Your task to perform on an android device: install app "Life360: Find Family & Friends" Image 0: 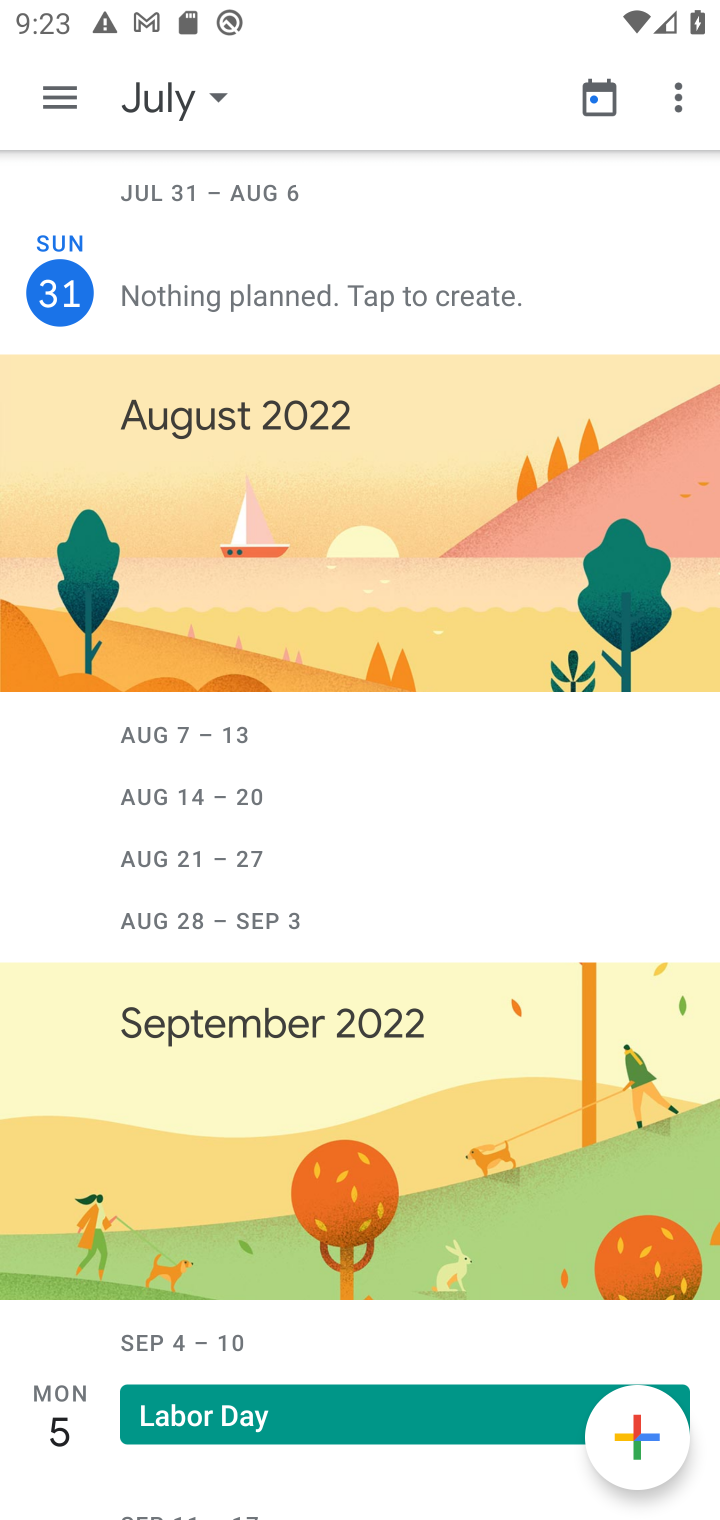
Step 0: press home button
Your task to perform on an android device: install app "Life360: Find Family & Friends" Image 1: 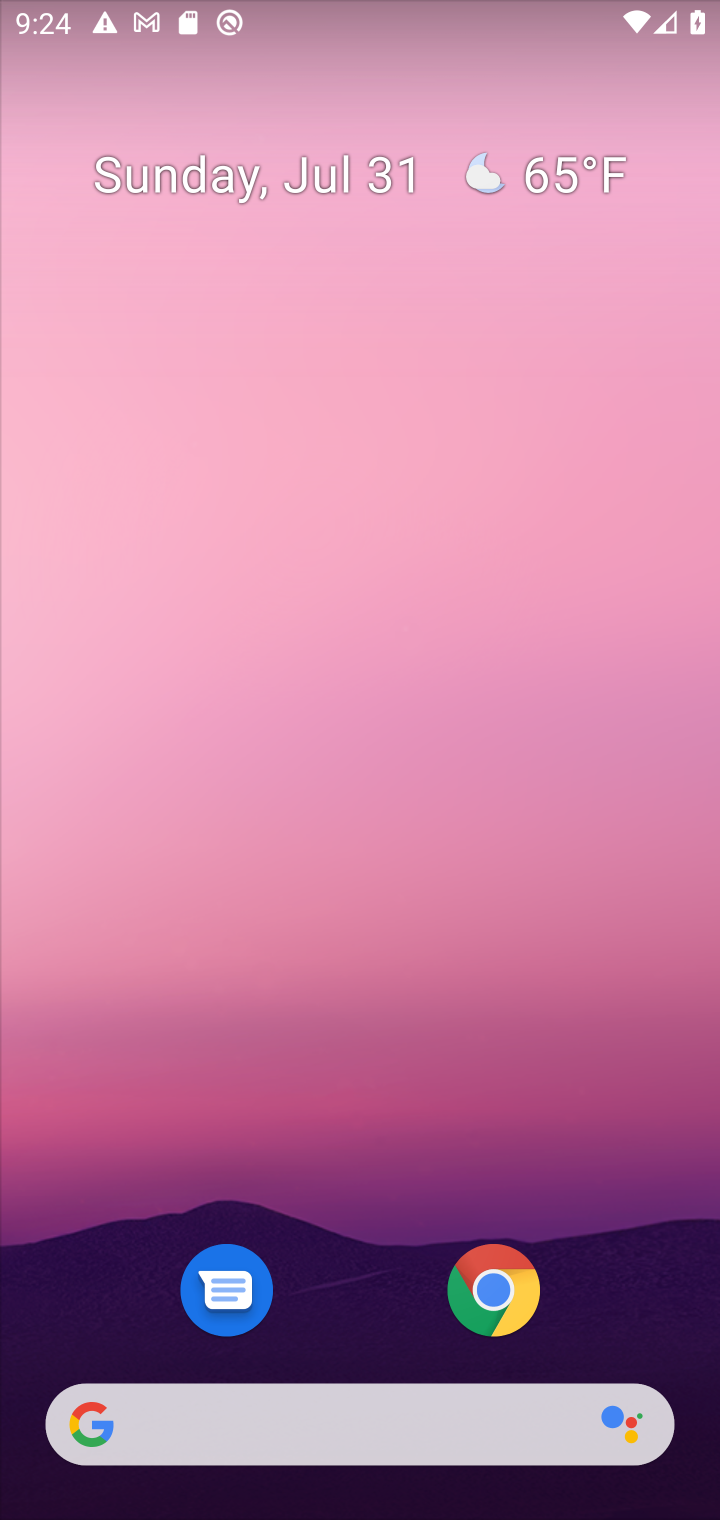
Step 1: drag from (608, 1082) to (549, 74)
Your task to perform on an android device: install app "Life360: Find Family & Friends" Image 2: 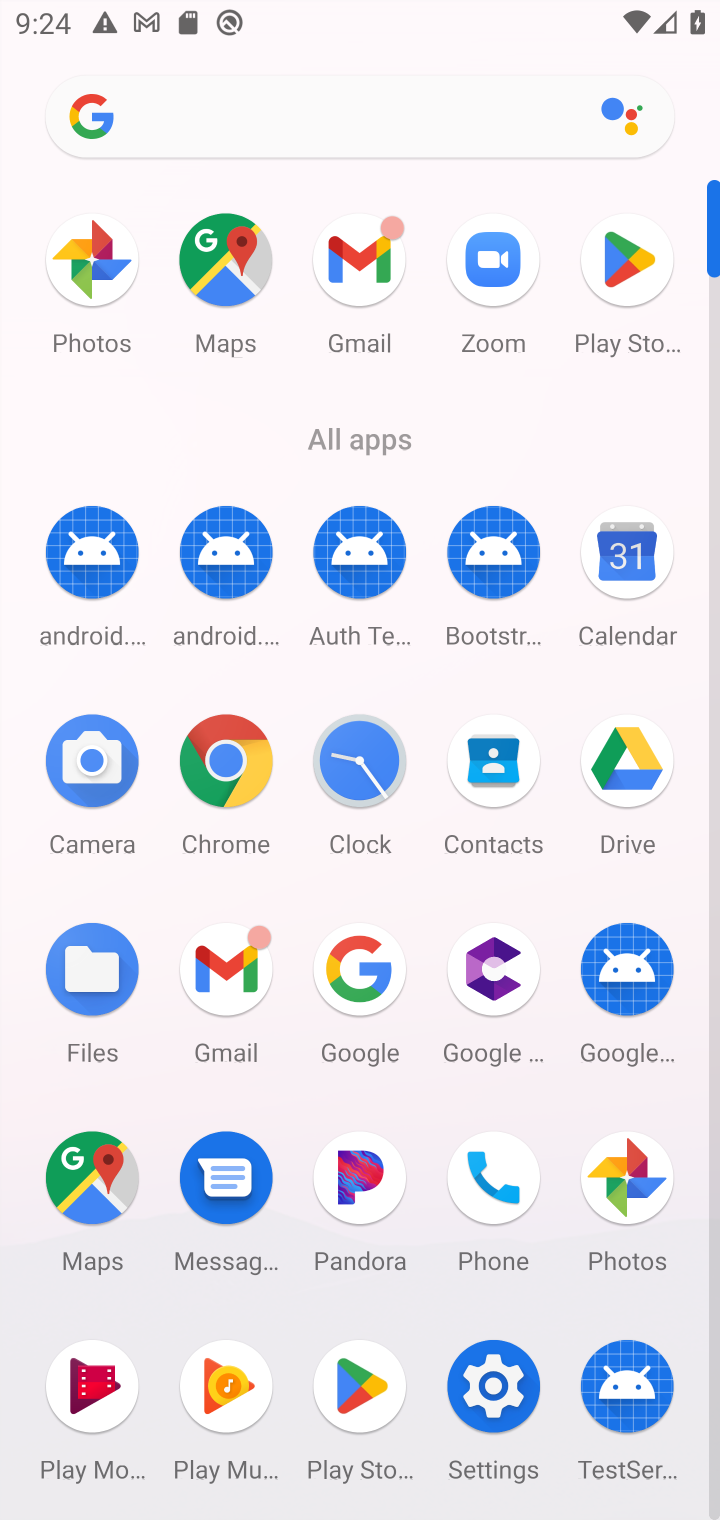
Step 2: click (407, 137)
Your task to perform on an android device: install app "Life360: Find Family & Friends" Image 3: 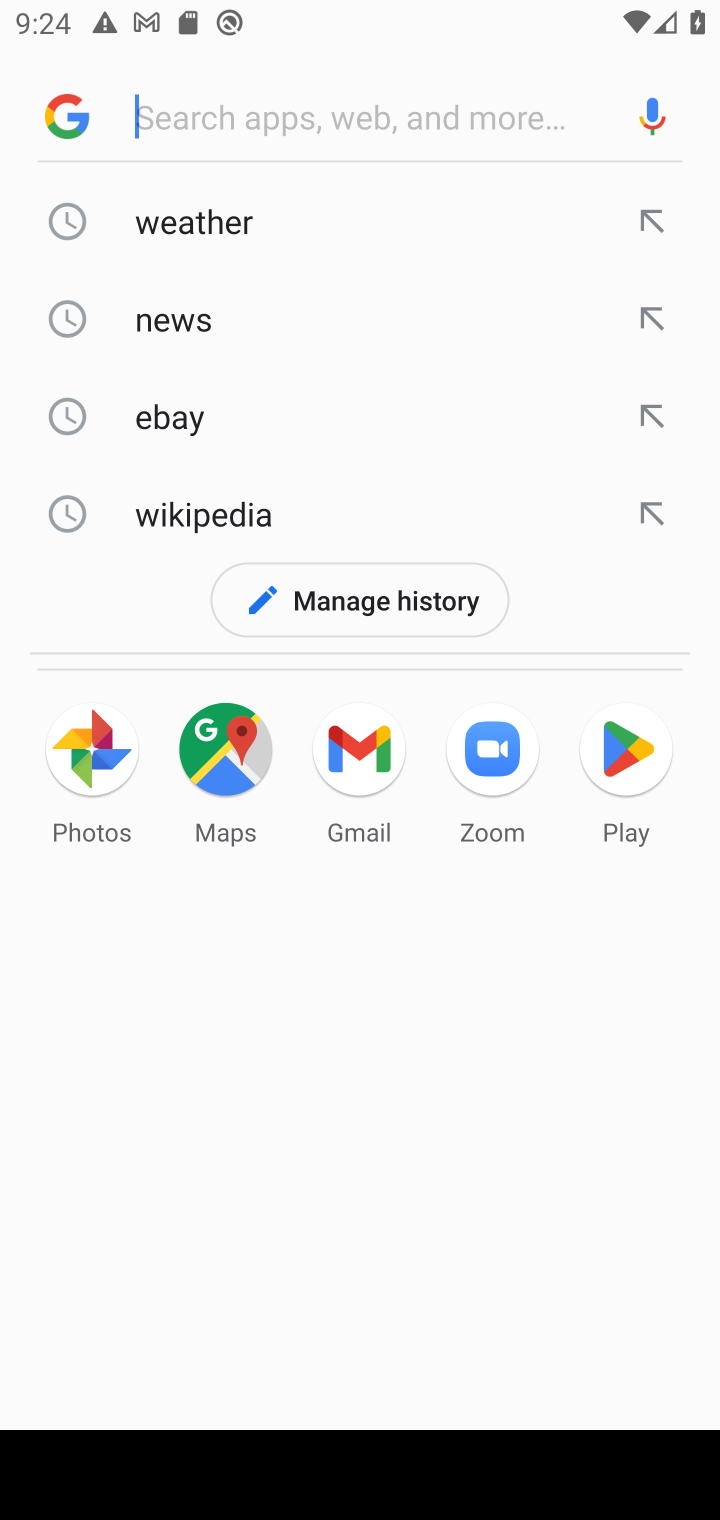
Step 3: type "Life360: Find Family & Friends"
Your task to perform on an android device: install app "Life360: Find Family & Friends" Image 4: 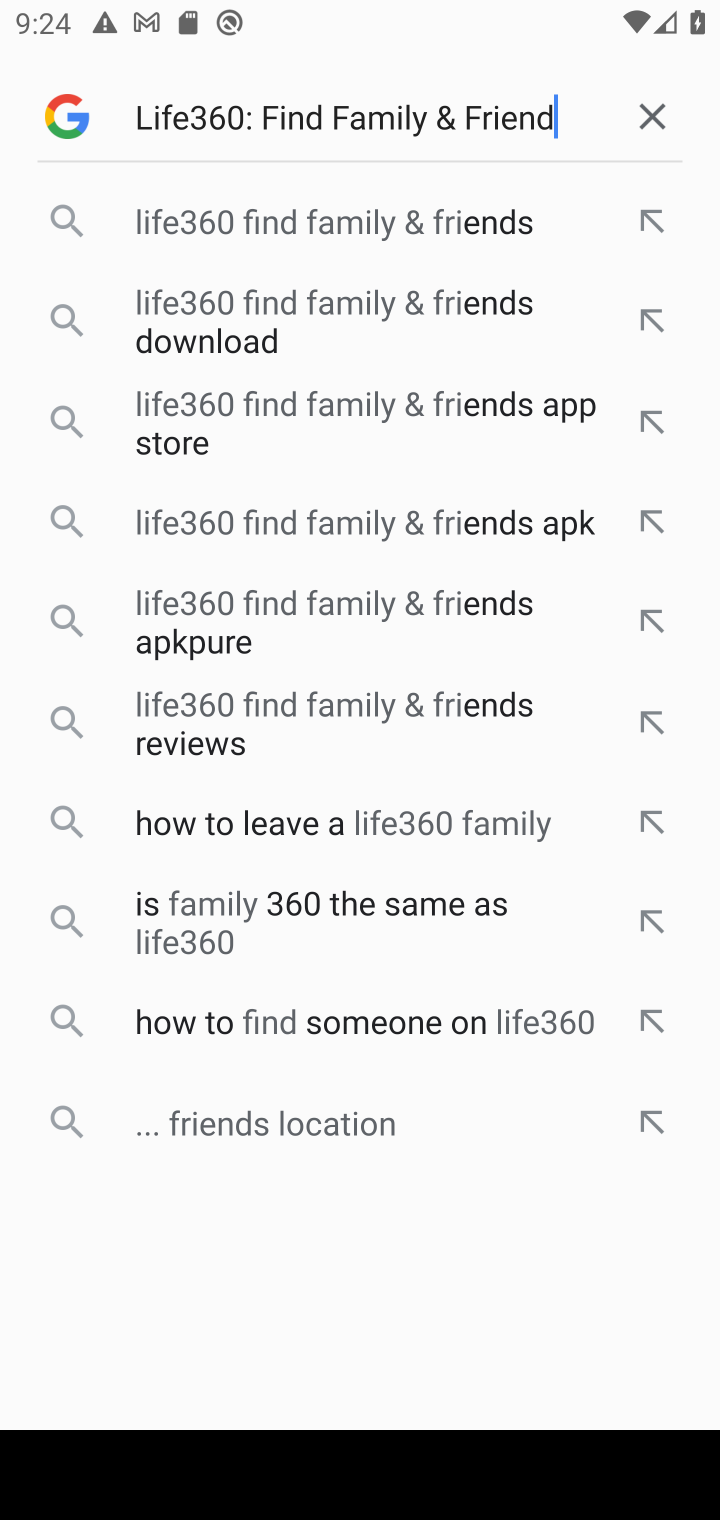
Step 4: press home button
Your task to perform on an android device: install app "Life360: Find Family & Friends" Image 5: 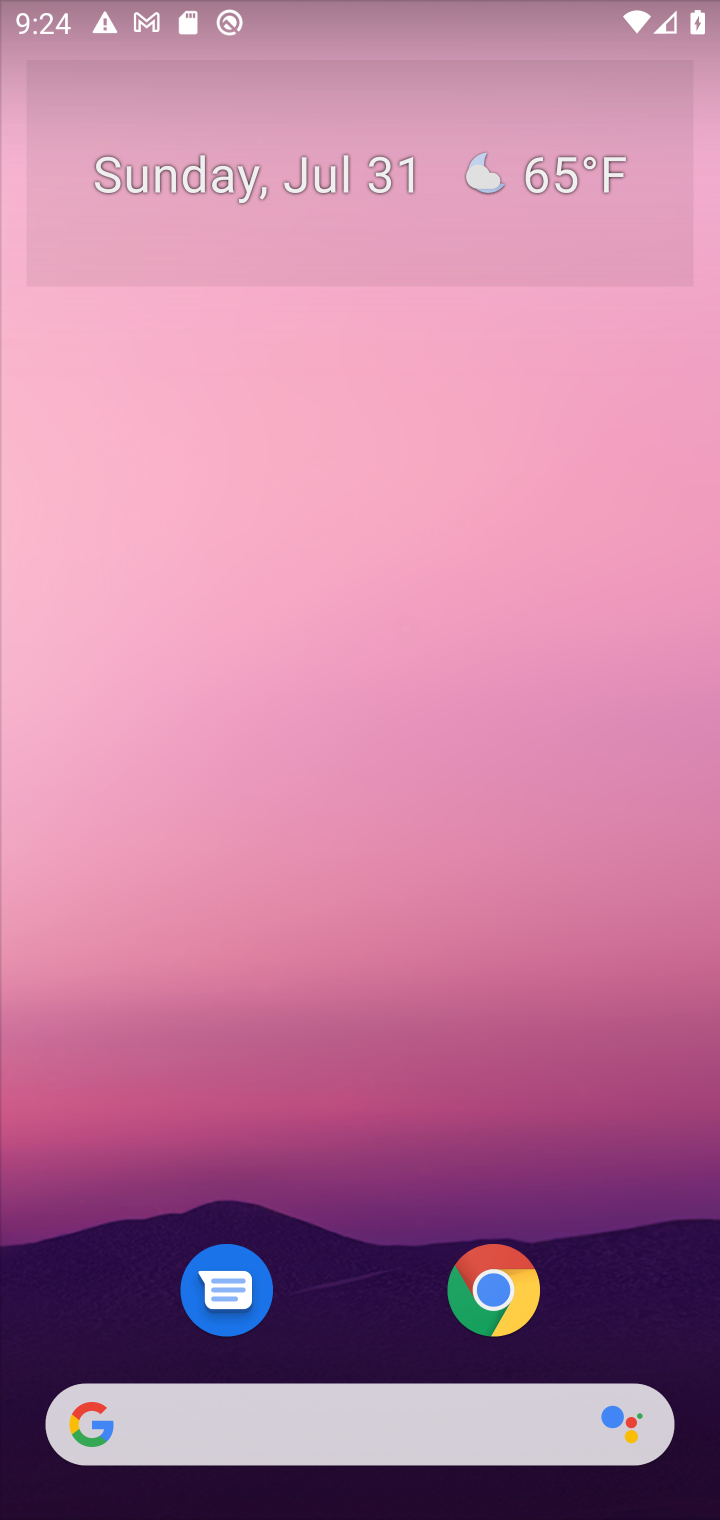
Step 5: drag from (610, 1227) to (621, 116)
Your task to perform on an android device: install app "Life360: Find Family & Friends" Image 6: 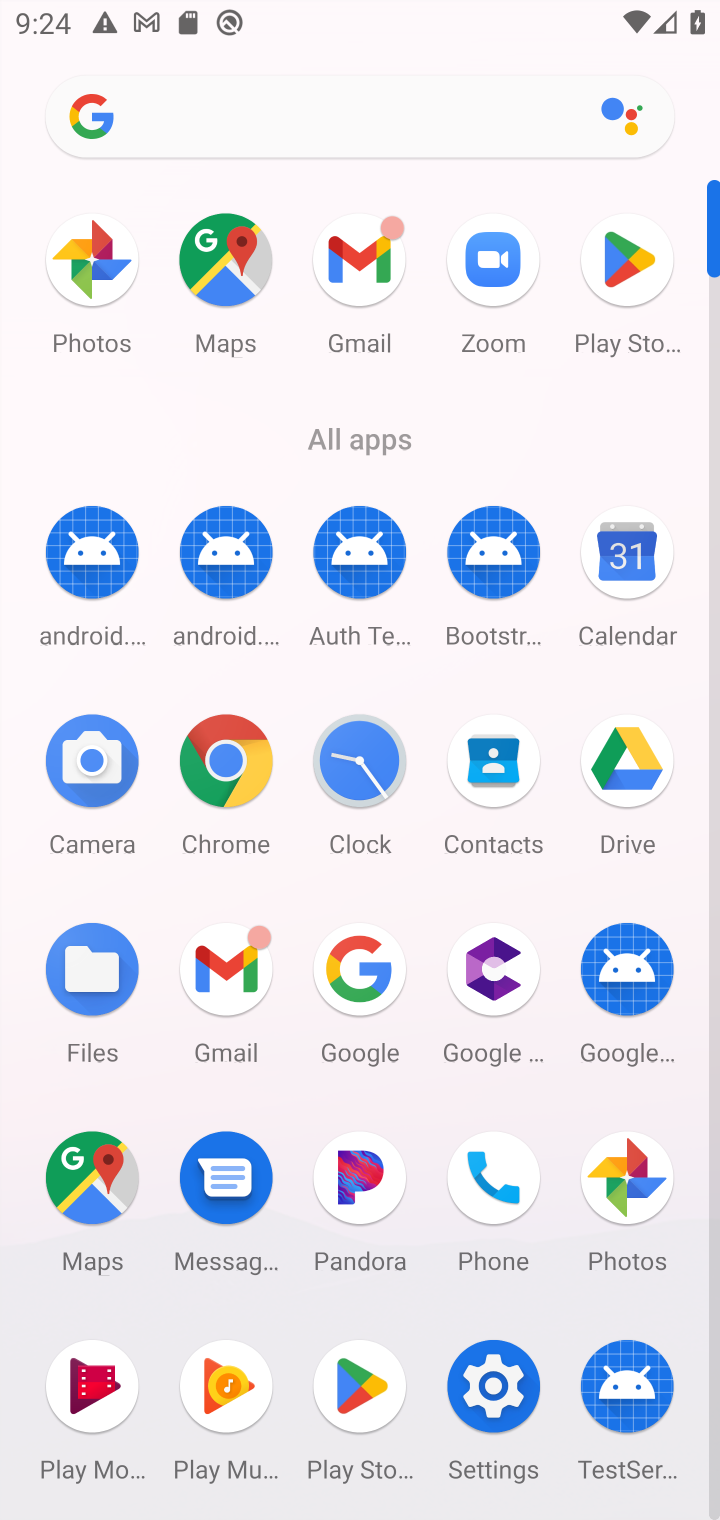
Step 6: click (626, 263)
Your task to perform on an android device: install app "Life360: Find Family & Friends" Image 7: 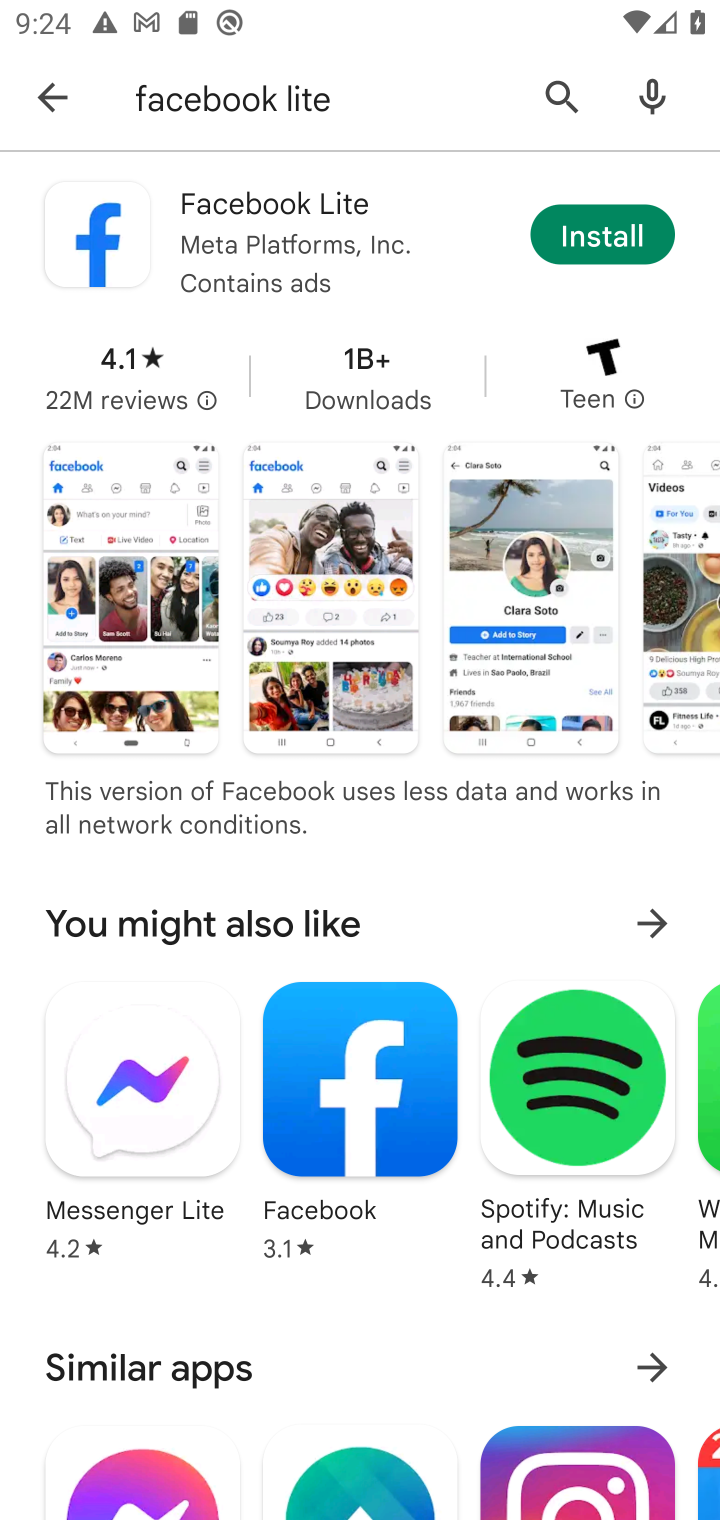
Step 7: click (555, 98)
Your task to perform on an android device: install app "Life360: Find Family & Friends" Image 8: 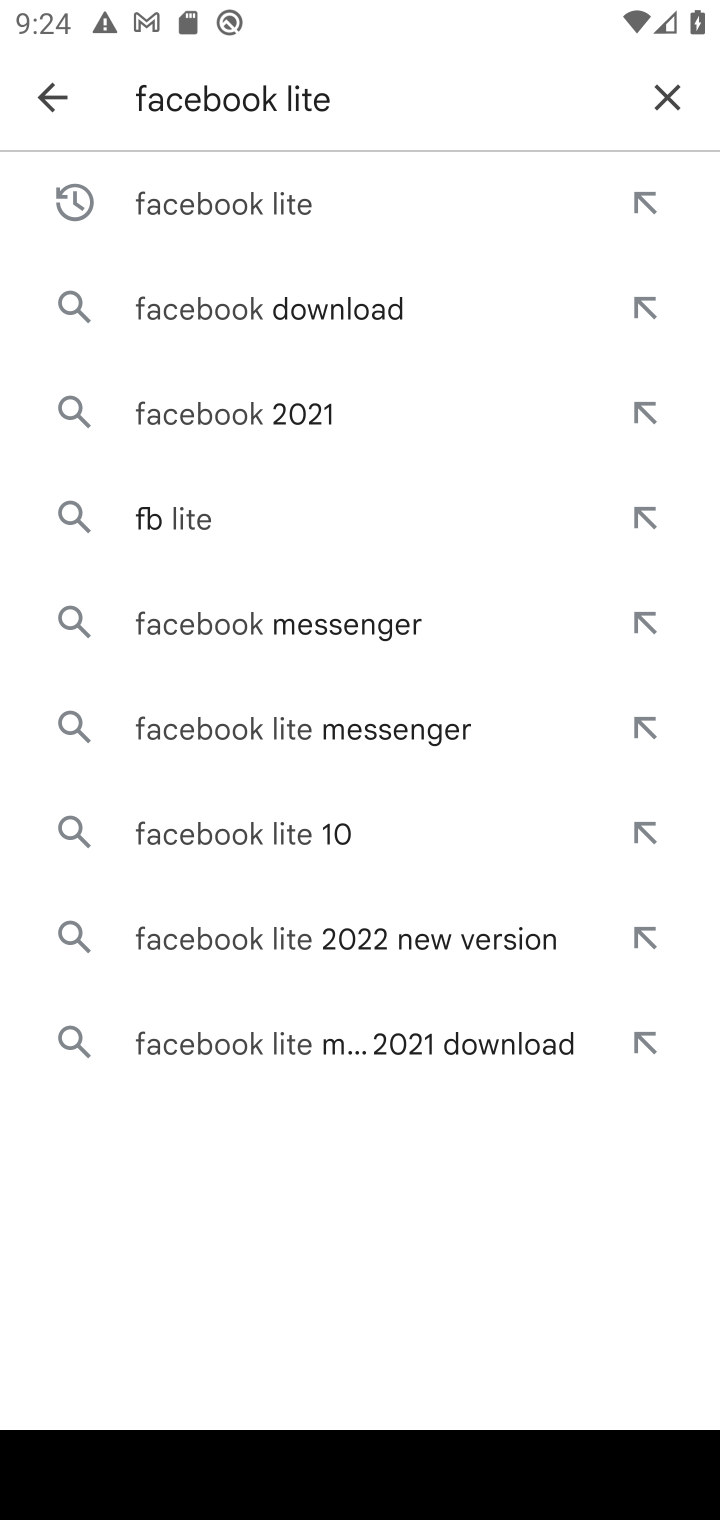
Step 8: click (673, 94)
Your task to perform on an android device: install app "Life360: Find Family & Friends" Image 9: 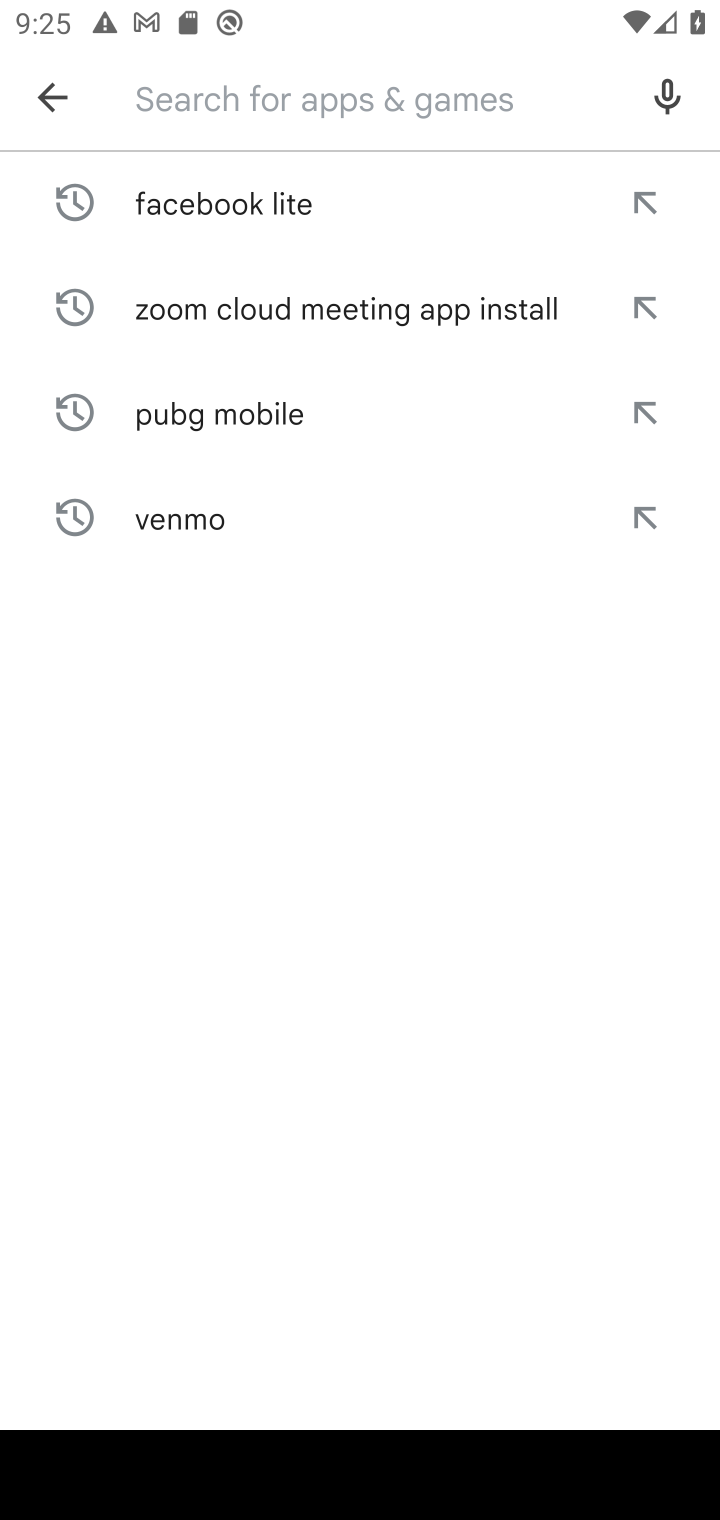
Step 9: type "Life360: Find Family & Friends"
Your task to perform on an android device: install app "Life360: Find Family & Friends" Image 10: 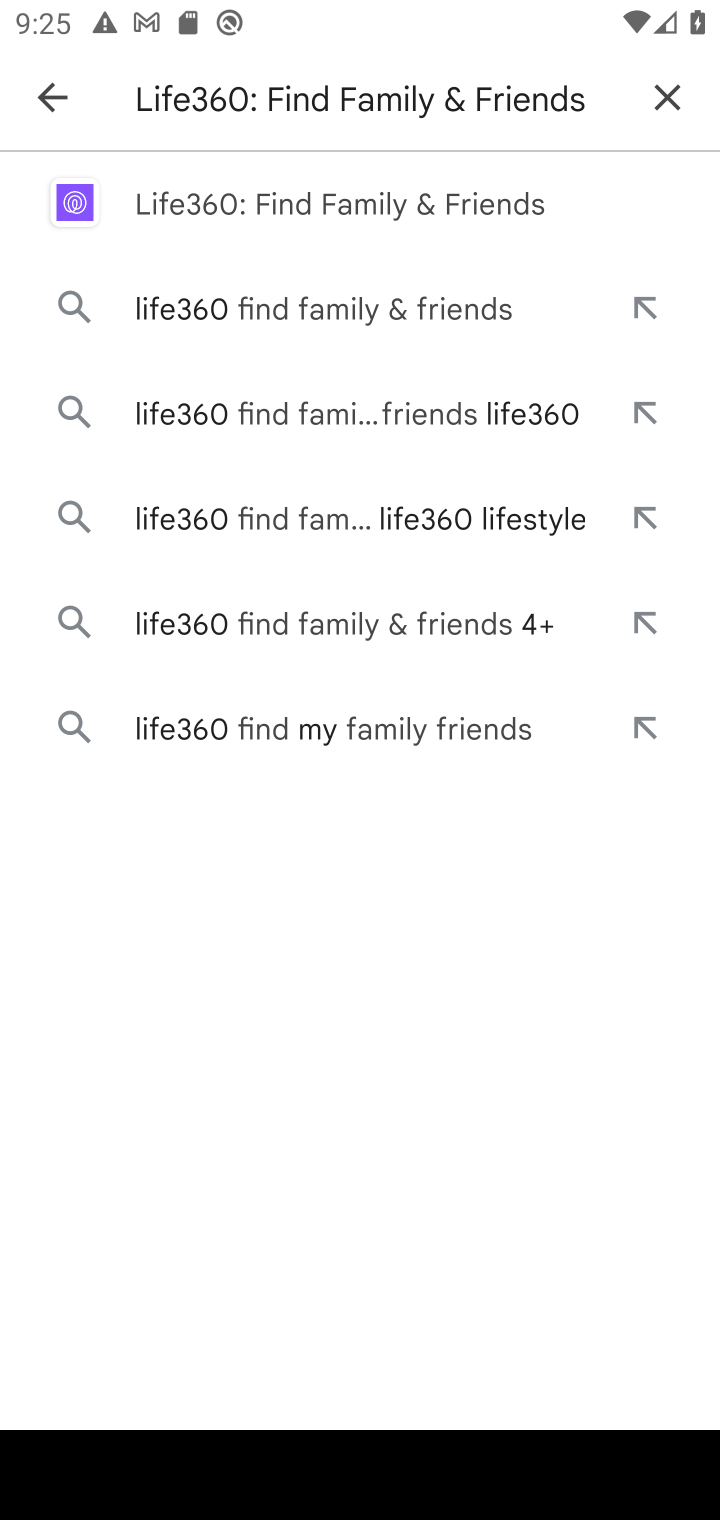
Step 10: click (374, 213)
Your task to perform on an android device: install app "Life360: Find Family & Friends" Image 11: 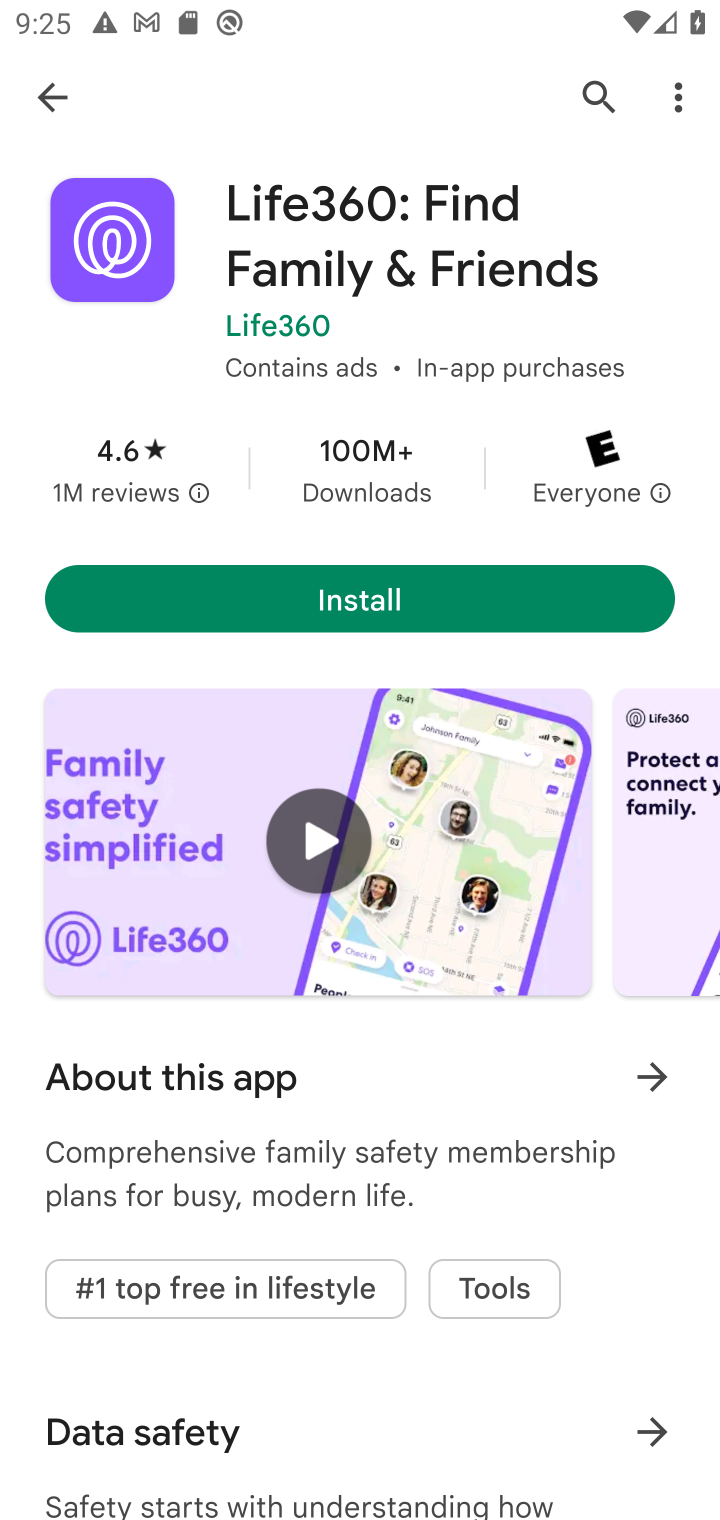
Step 11: click (407, 595)
Your task to perform on an android device: install app "Life360: Find Family & Friends" Image 12: 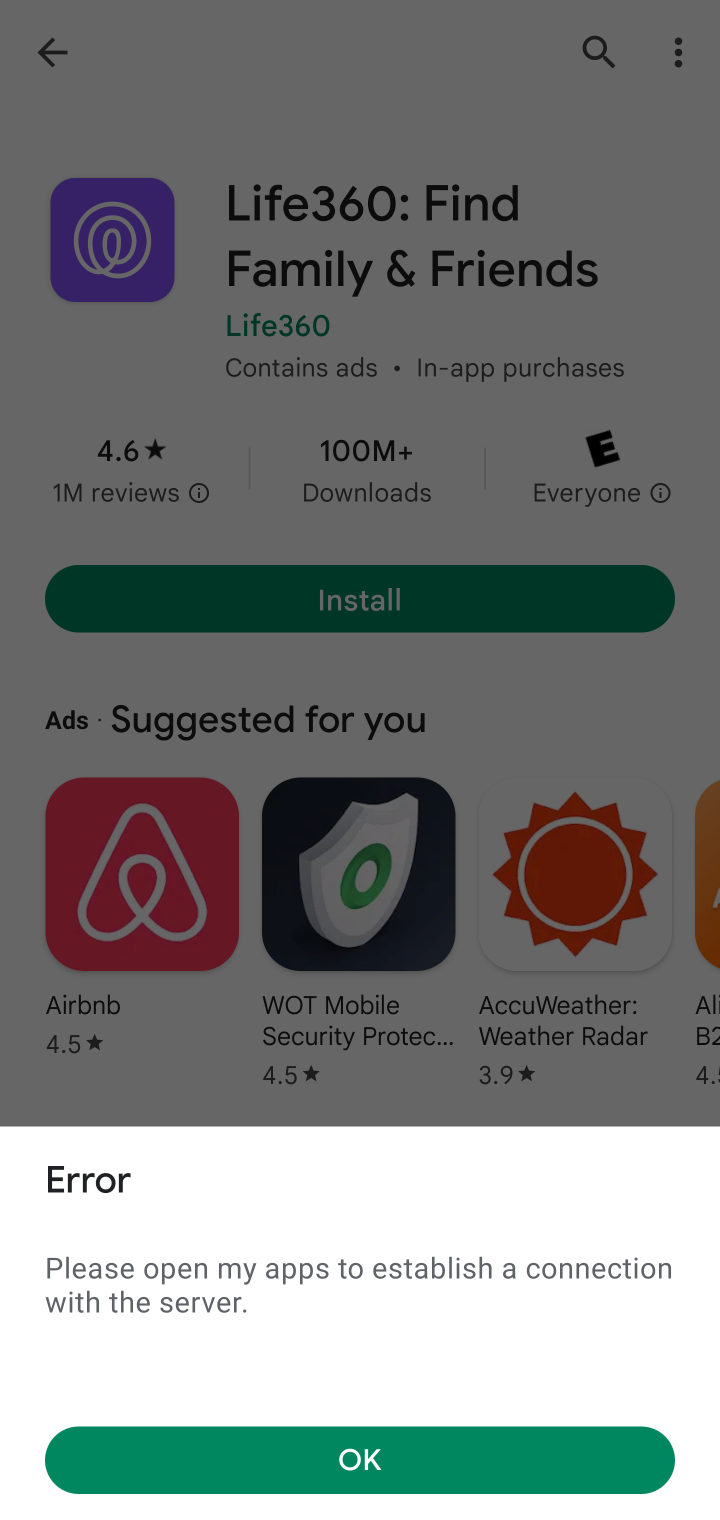
Step 12: click (258, 1455)
Your task to perform on an android device: install app "Life360: Find Family & Friends" Image 13: 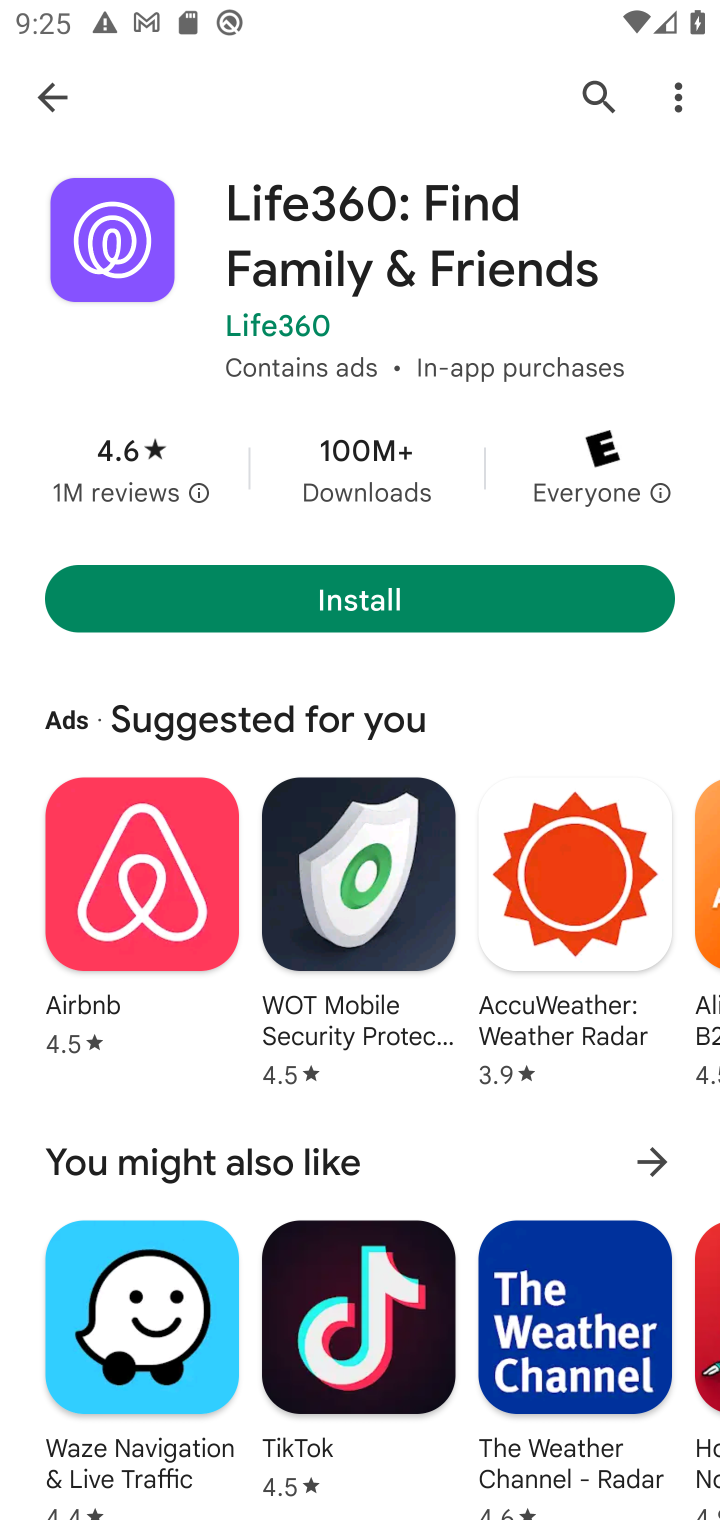
Step 13: click (411, 604)
Your task to perform on an android device: install app "Life360: Find Family & Friends" Image 14: 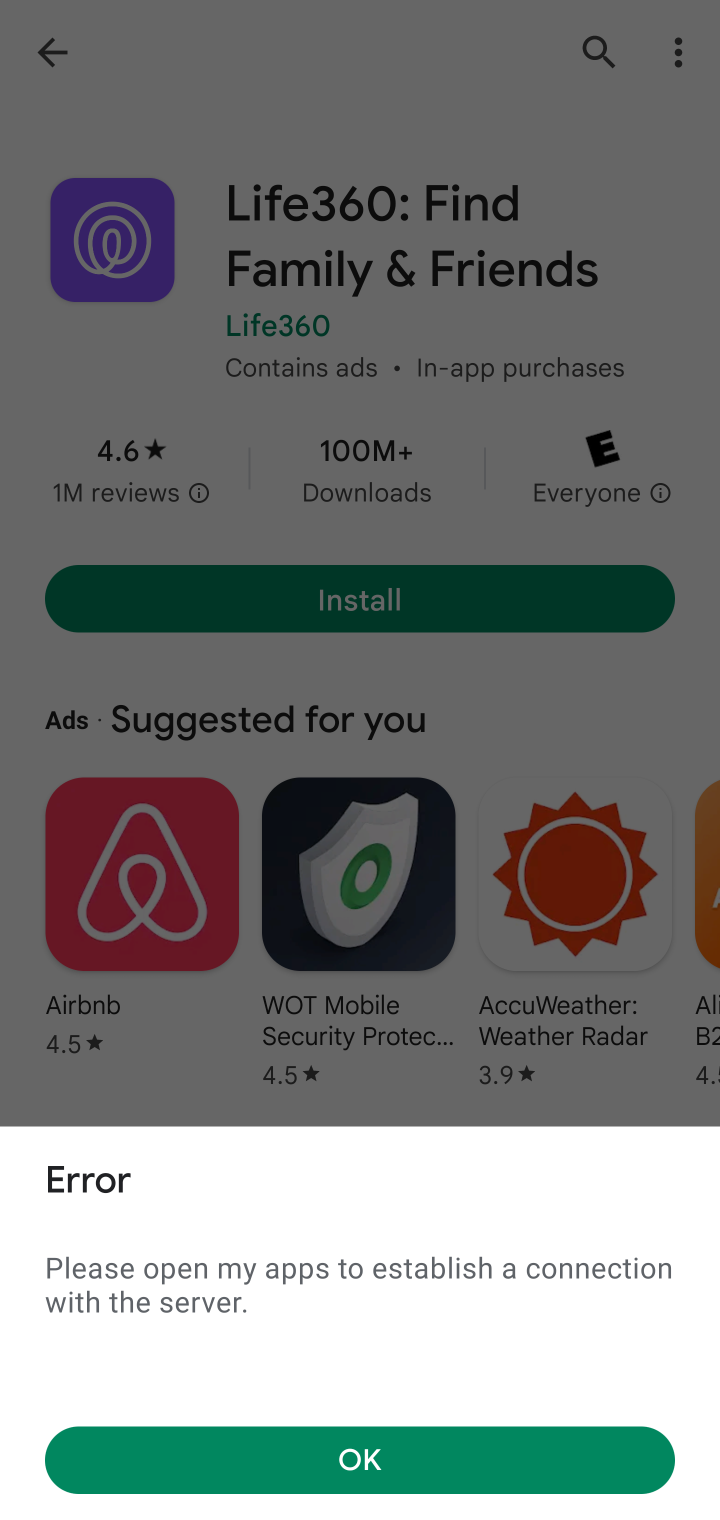
Step 14: task complete